Your task to perform on an android device: open app "Google Play Music" Image 0: 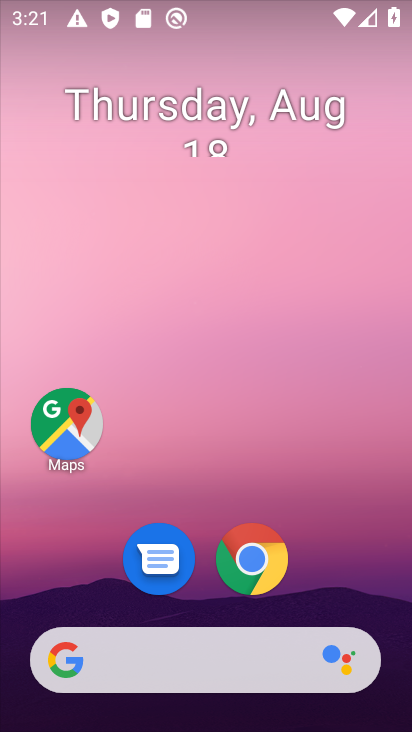
Step 0: drag from (162, 604) to (289, 0)
Your task to perform on an android device: open app "Google Play Music" Image 1: 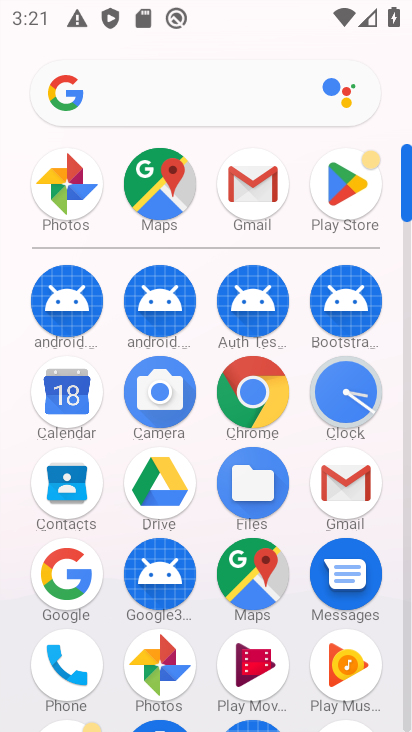
Step 1: click (359, 187)
Your task to perform on an android device: open app "Google Play Music" Image 2: 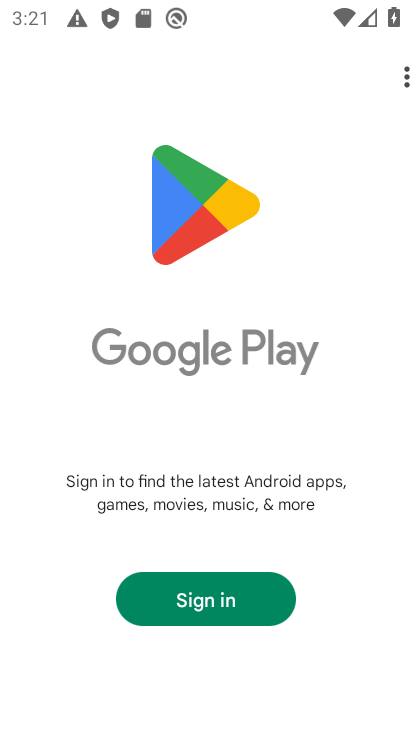
Step 2: click (224, 595)
Your task to perform on an android device: open app "Google Play Music" Image 3: 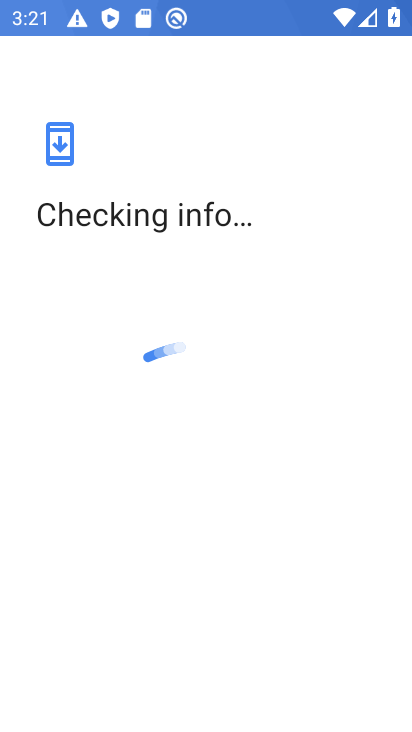
Step 3: task complete